Your task to perform on an android device: Go to Maps Image 0: 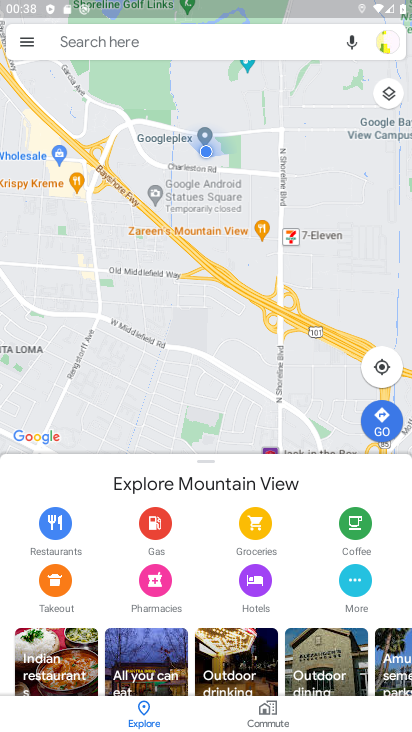
Step 0: task complete